Your task to perform on an android device: Add "usb-a to usb-b" to the cart on walmart, then select checkout. Image 0: 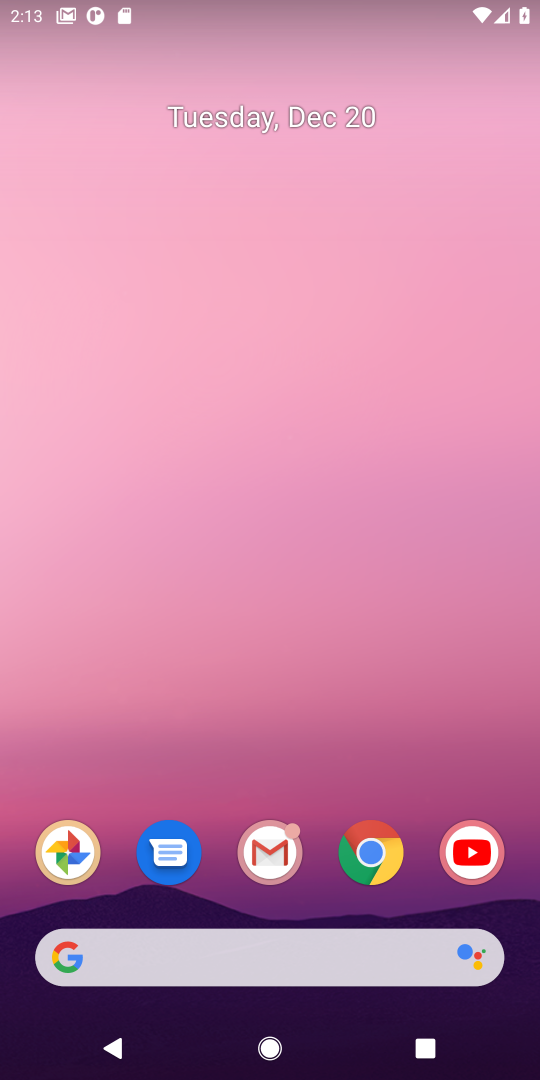
Step 0: click (380, 861)
Your task to perform on an android device: Add "usb-a to usb-b" to the cart on walmart, then select checkout. Image 1: 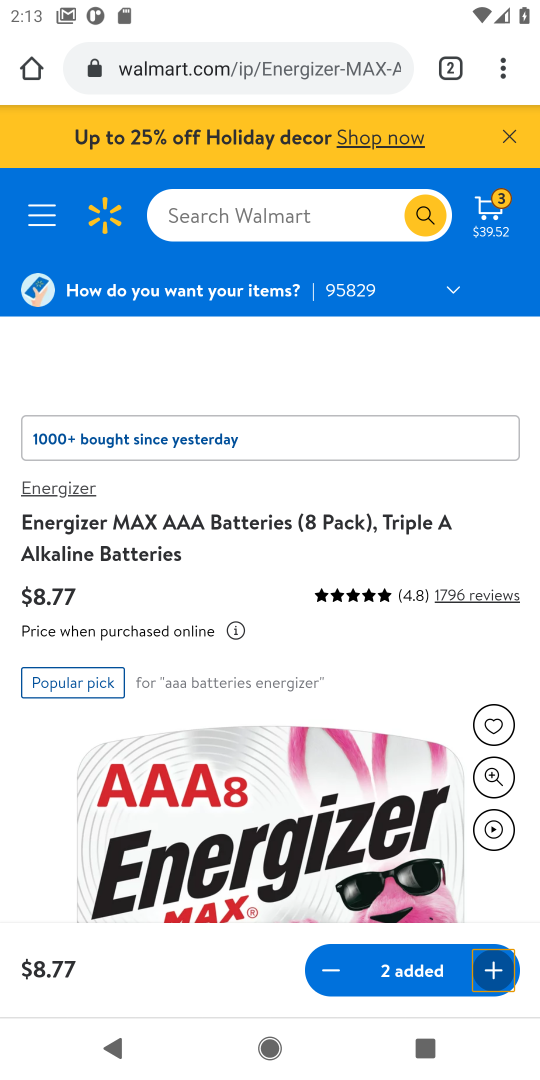
Step 1: click (246, 235)
Your task to perform on an android device: Add "usb-a to usb-b" to the cart on walmart, then select checkout. Image 2: 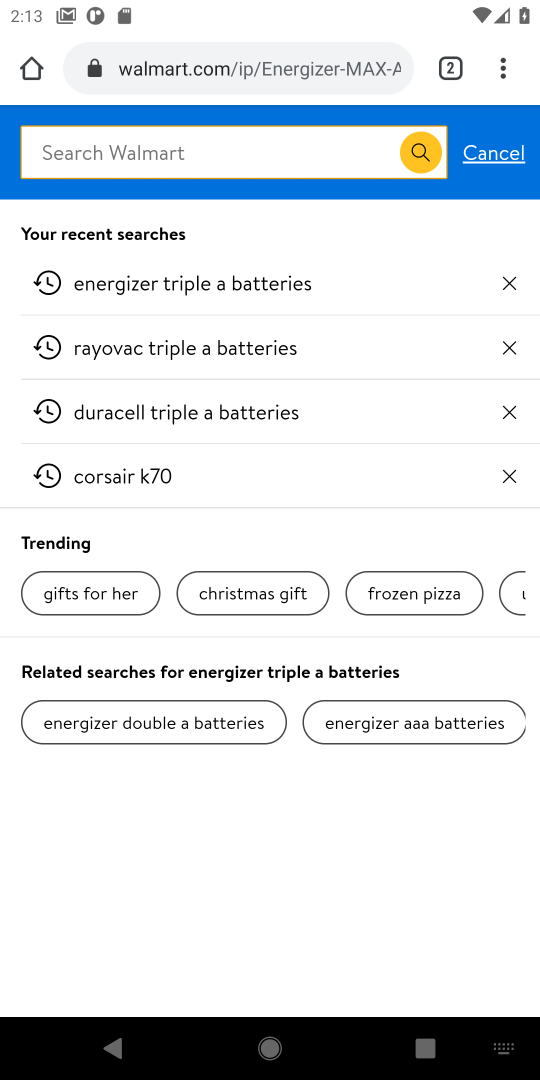
Step 2: type "usb-a to usb-b"
Your task to perform on an android device: Add "usb-a to usb-b" to the cart on walmart, then select checkout. Image 3: 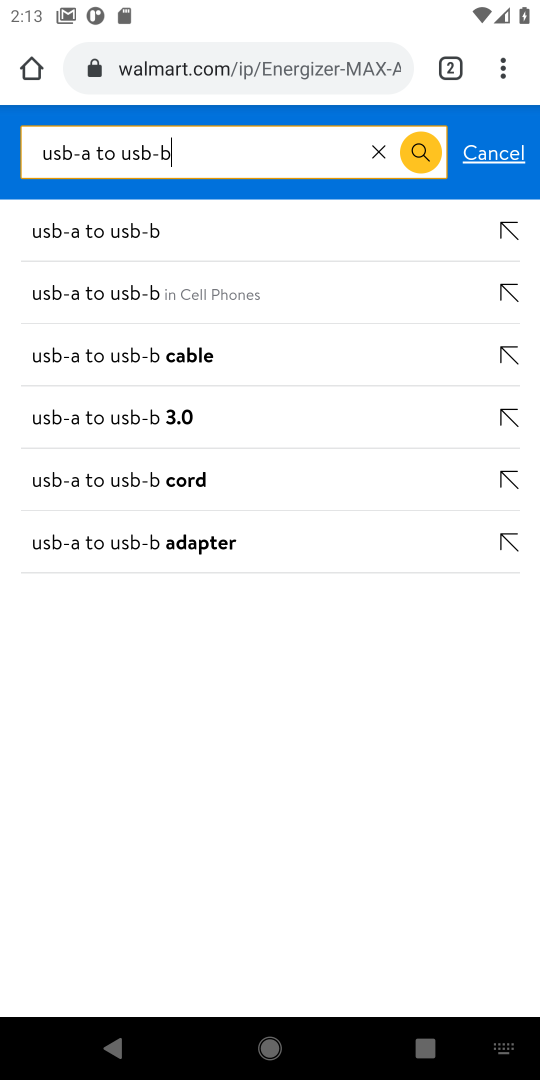
Step 3: click (76, 232)
Your task to perform on an android device: Add "usb-a to usb-b" to the cart on walmart, then select checkout. Image 4: 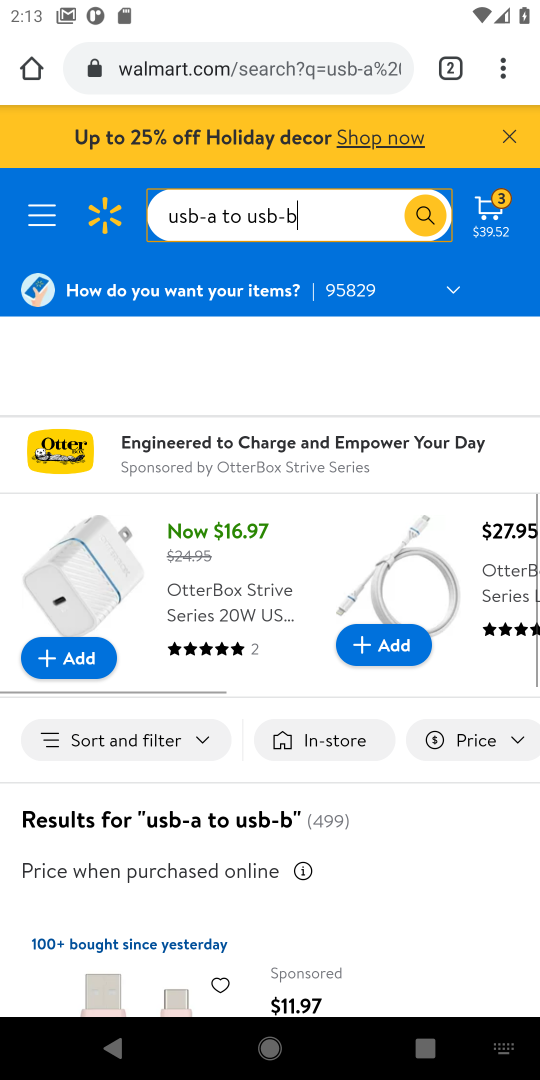
Step 4: drag from (246, 847) to (246, 469)
Your task to perform on an android device: Add "usb-a to usb-b" to the cart on walmart, then select checkout. Image 5: 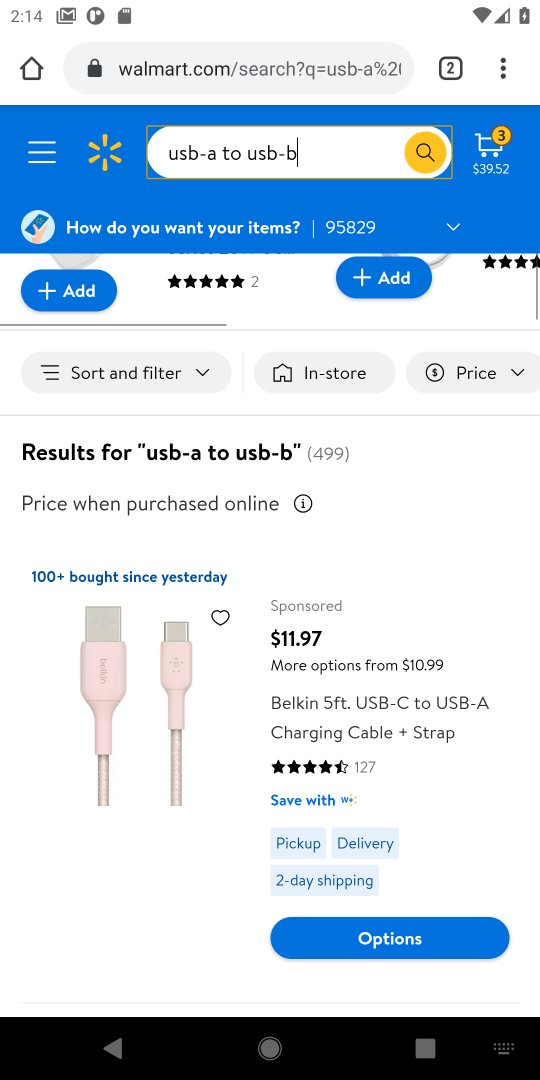
Step 5: drag from (299, 751) to (301, 343)
Your task to perform on an android device: Add "usb-a to usb-b" to the cart on walmart, then select checkout. Image 6: 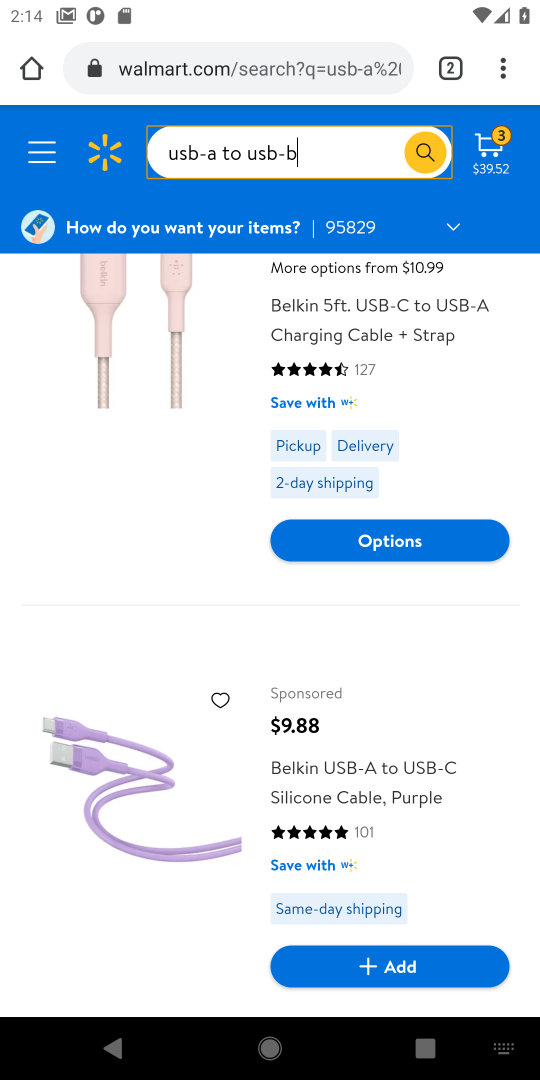
Step 6: drag from (345, 695) to (330, 362)
Your task to perform on an android device: Add "usb-a to usb-b" to the cart on walmart, then select checkout. Image 7: 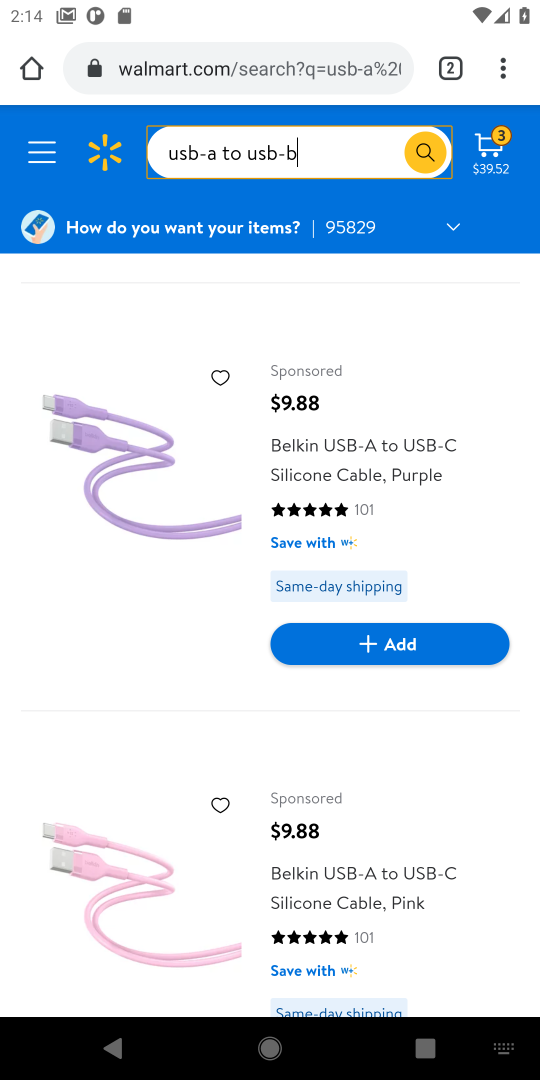
Step 7: drag from (355, 754) to (310, 319)
Your task to perform on an android device: Add "usb-a to usb-b" to the cart on walmart, then select checkout. Image 8: 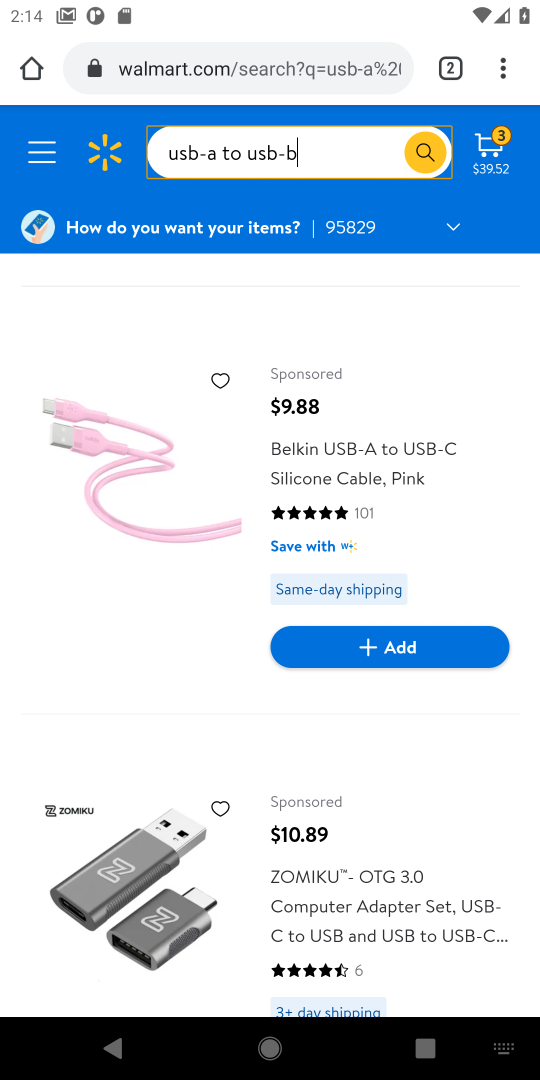
Step 8: drag from (486, 761) to (450, 382)
Your task to perform on an android device: Add "usb-a to usb-b" to the cart on walmart, then select checkout. Image 9: 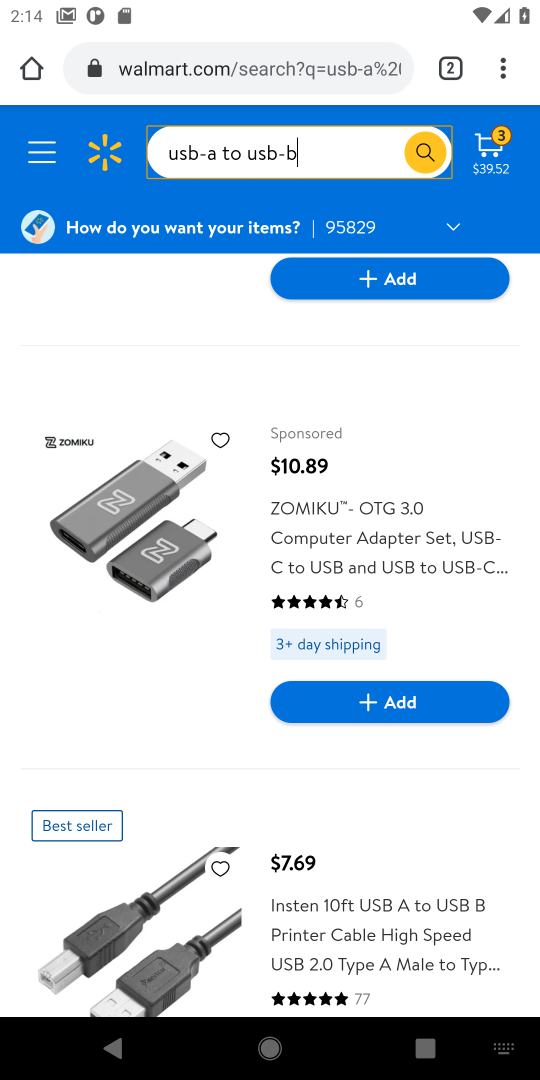
Step 9: drag from (373, 885) to (374, 537)
Your task to perform on an android device: Add "usb-a to usb-b" to the cart on walmart, then select checkout. Image 10: 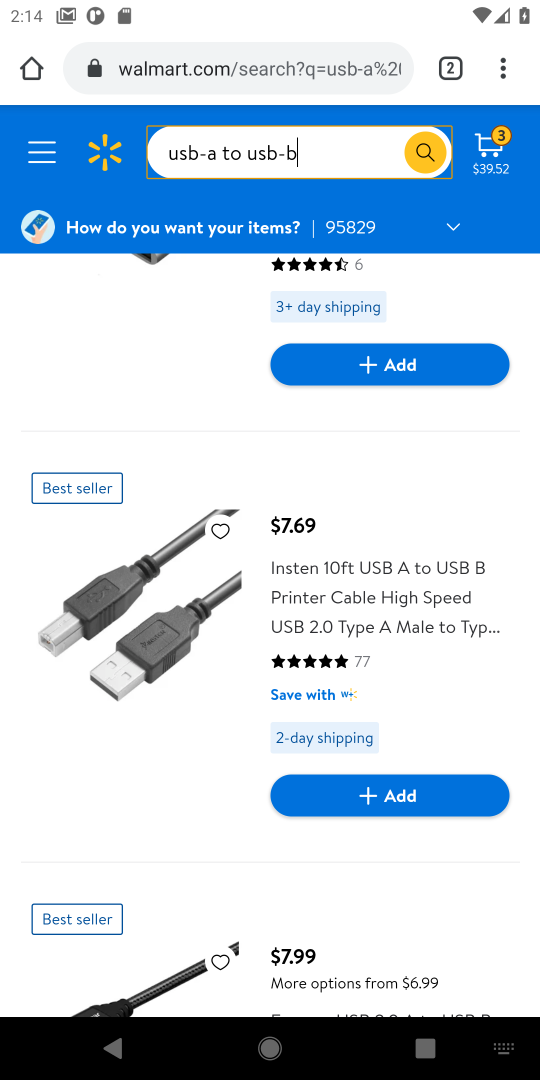
Step 10: click (384, 799)
Your task to perform on an android device: Add "usb-a to usb-b" to the cart on walmart, then select checkout. Image 11: 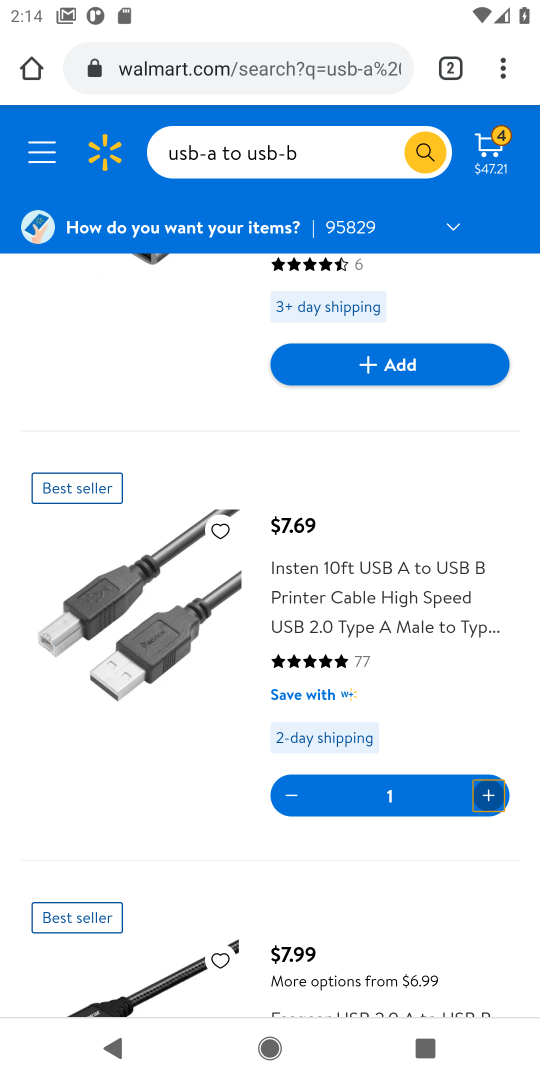
Step 11: click (487, 163)
Your task to perform on an android device: Add "usb-a to usb-b" to the cart on walmart, then select checkout. Image 12: 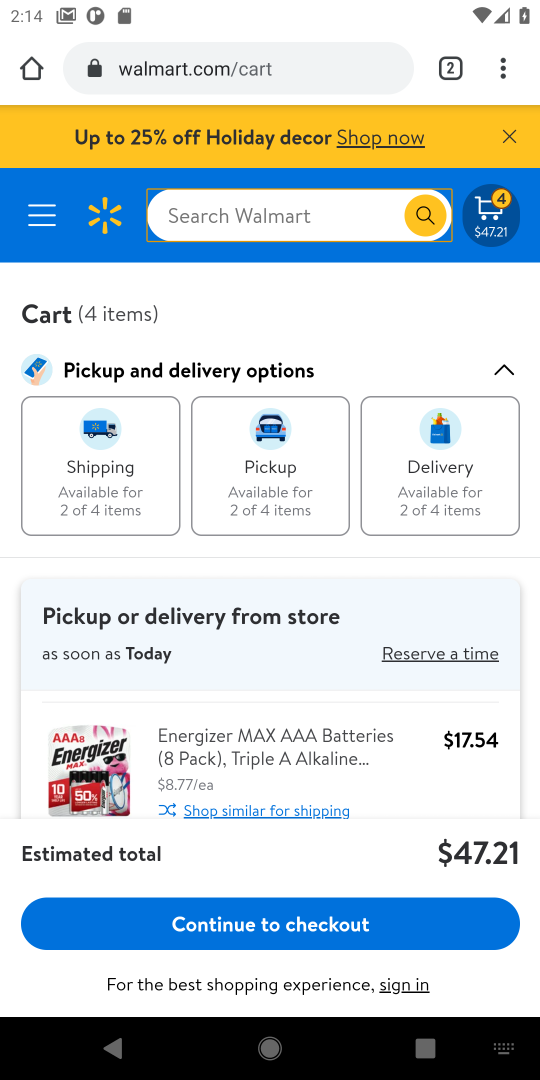
Step 12: click (309, 922)
Your task to perform on an android device: Add "usb-a to usb-b" to the cart on walmart, then select checkout. Image 13: 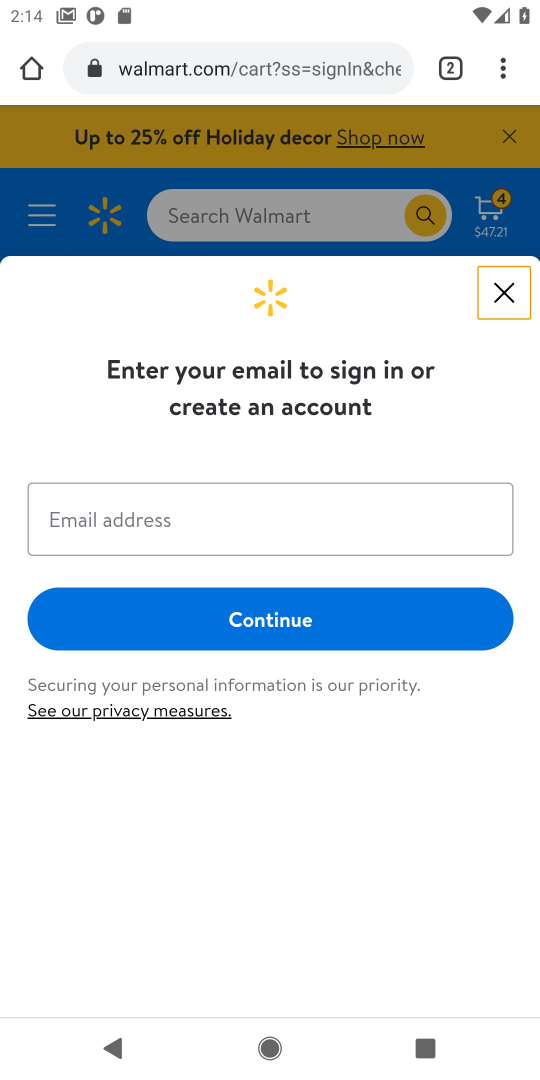
Step 13: task complete